Your task to perform on an android device: uninstall "Google Pay: Save, Pay, Manage" Image 0: 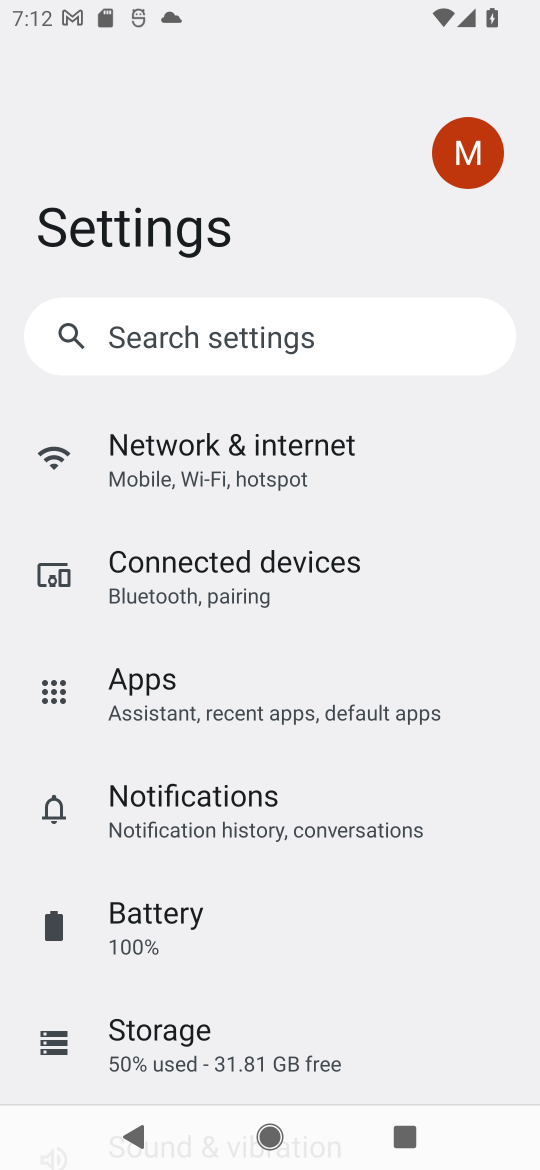
Step 0: press home button
Your task to perform on an android device: uninstall "Google Pay: Save, Pay, Manage" Image 1: 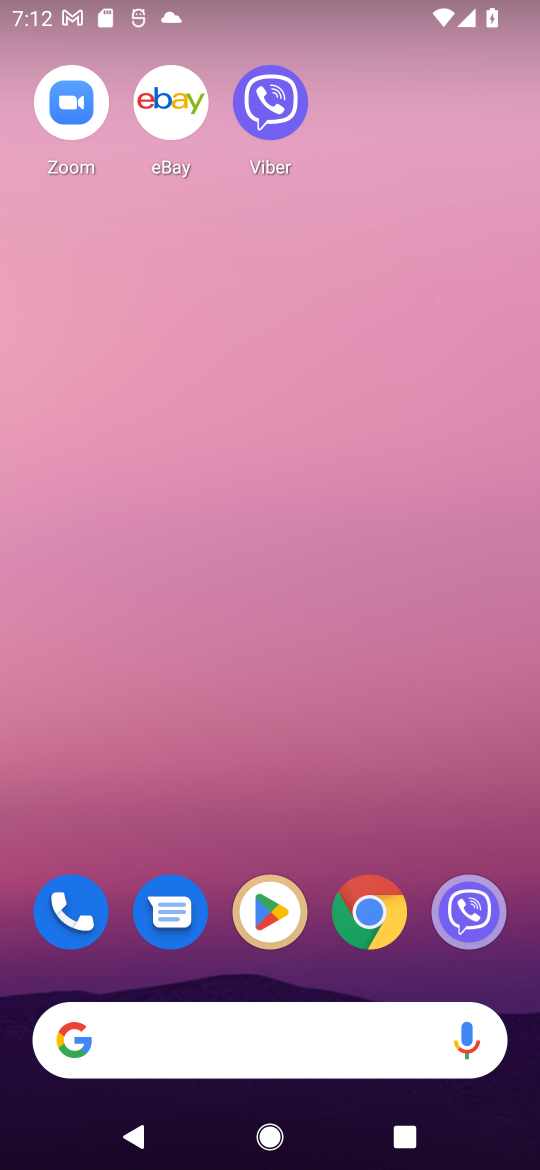
Step 1: click (269, 909)
Your task to perform on an android device: uninstall "Google Pay: Save, Pay, Manage" Image 2: 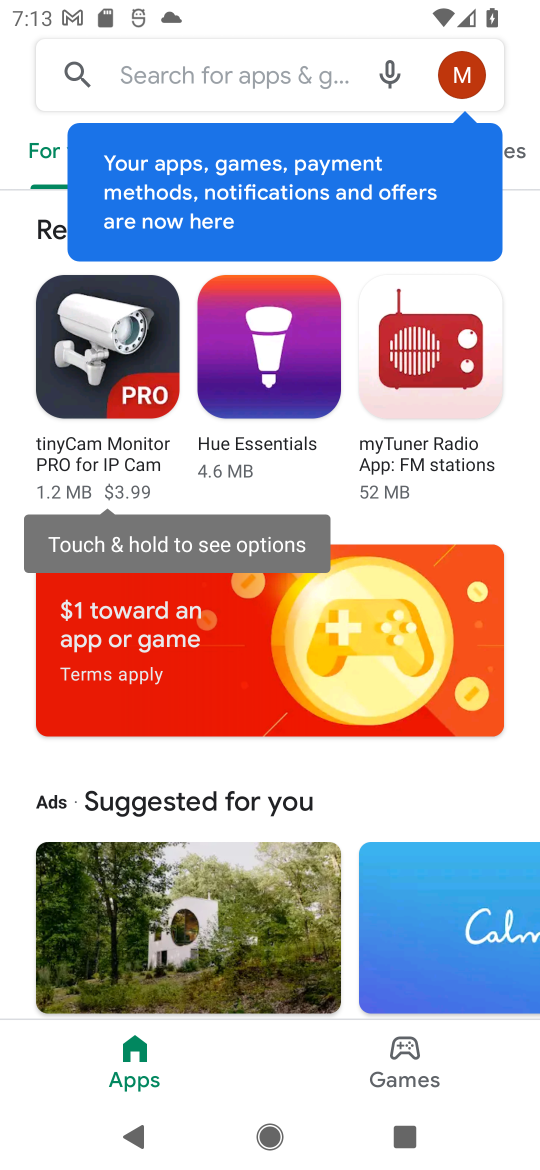
Step 2: click (235, 79)
Your task to perform on an android device: uninstall "Google Pay: Save, Pay, Manage" Image 3: 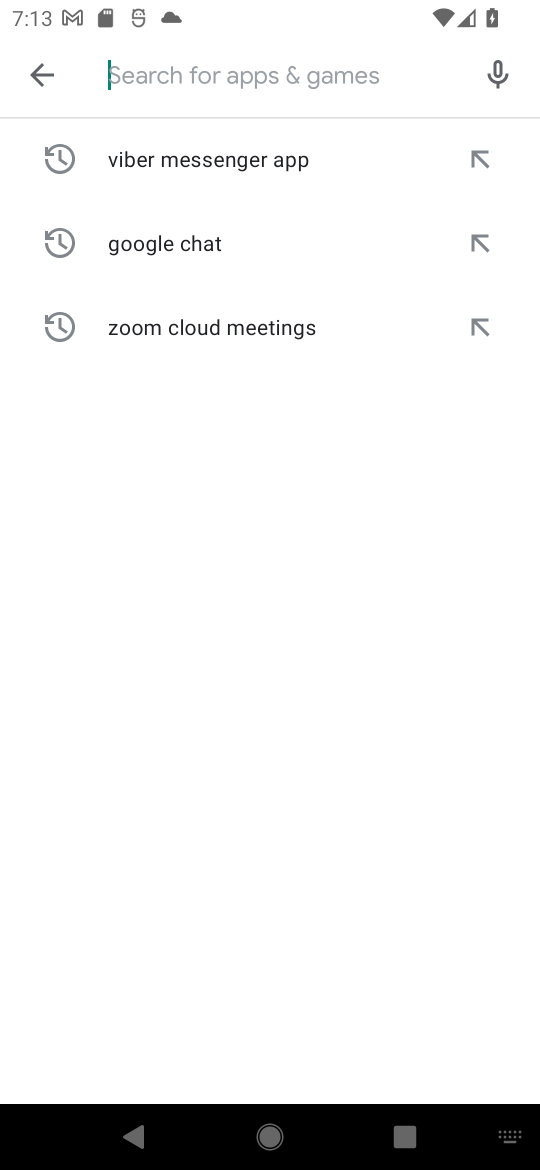
Step 3: type "Google Pay: Save, Pay, Manage"
Your task to perform on an android device: uninstall "Google Pay: Save, Pay, Manage" Image 4: 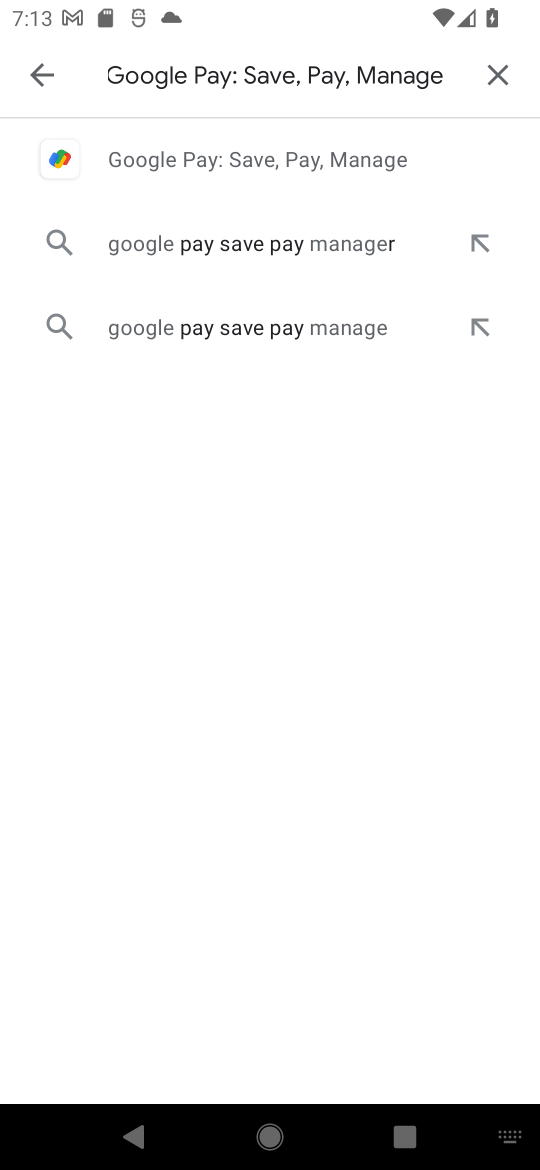
Step 4: click (219, 143)
Your task to perform on an android device: uninstall "Google Pay: Save, Pay, Manage" Image 5: 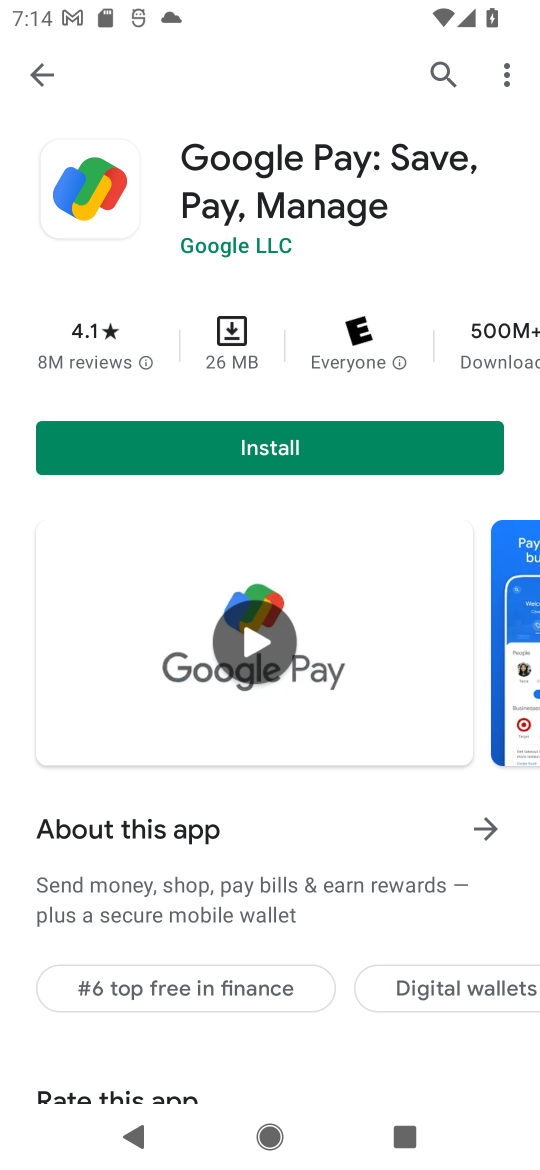
Step 5: task complete